Your task to perform on an android device: Go to sound settings Image 0: 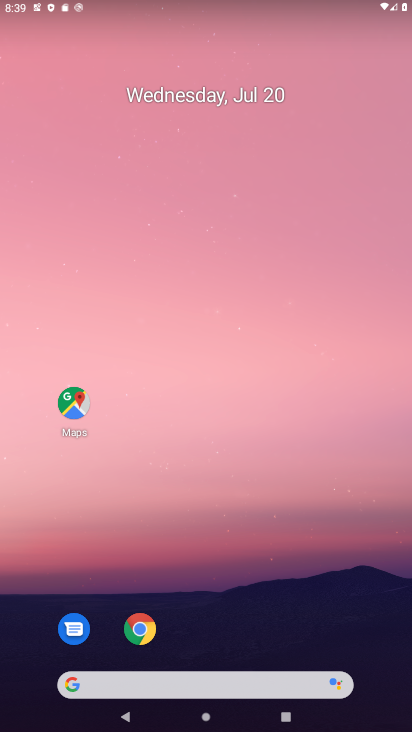
Step 0: drag from (230, 661) to (228, 221)
Your task to perform on an android device: Go to sound settings Image 1: 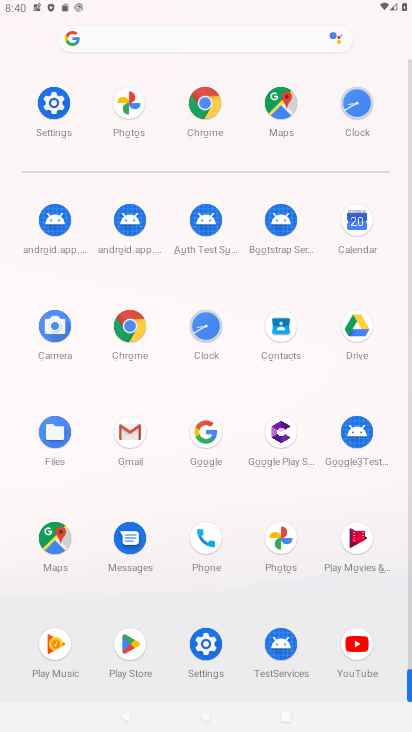
Step 1: click (204, 656)
Your task to perform on an android device: Go to sound settings Image 2: 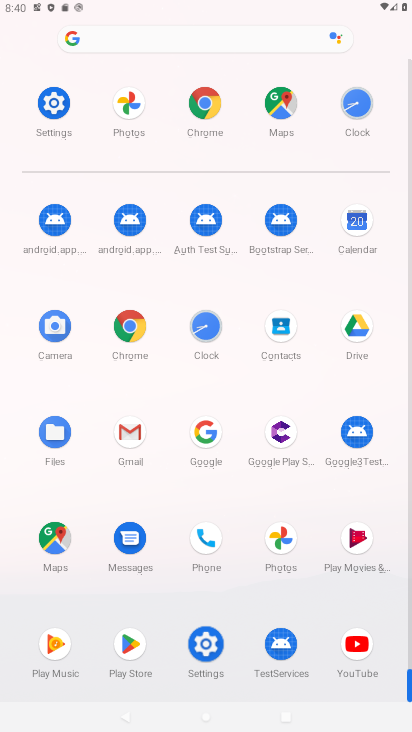
Step 2: click (205, 655)
Your task to perform on an android device: Go to sound settings Image 3: 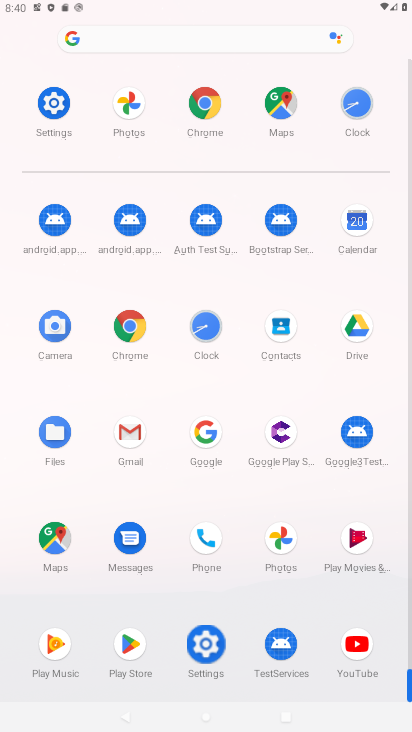
Step 3: click (207, 653)
Your task to perform on an android device: Go to sound settings Image 4: 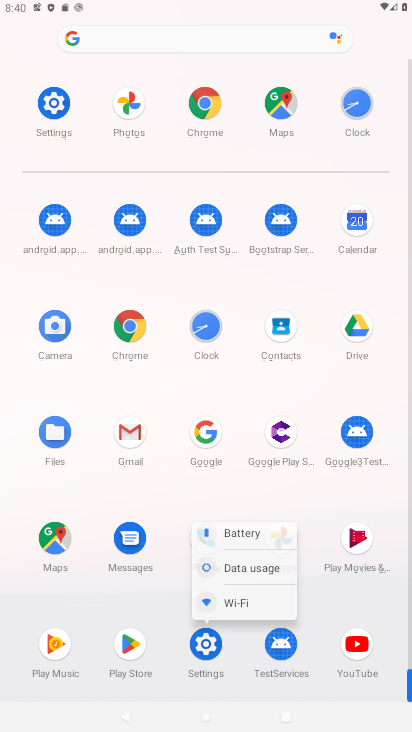
Step 4: click (211, 651)
Your task to perform on an android device: Go to sound settings Image 5: 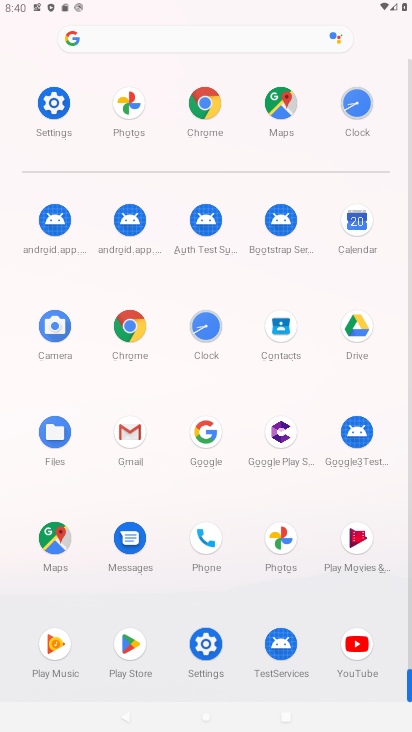
Step 5: click (215, 649)
Your task to perform on an android device: Go to sound settings Image 6: 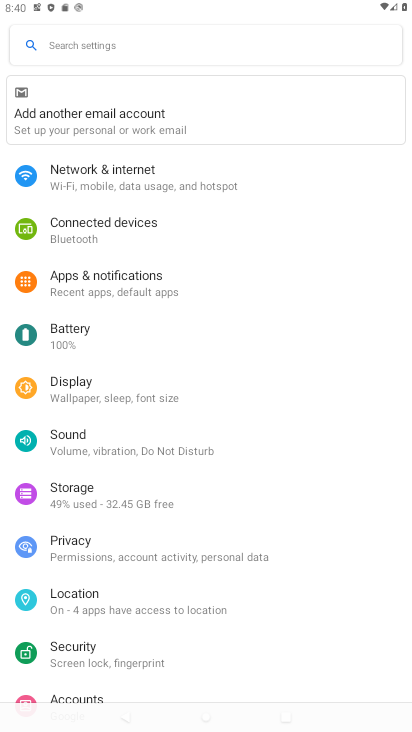
Step 6: click (73, 446)
Your task to perform on an android device: Go to sound settings Image 7: 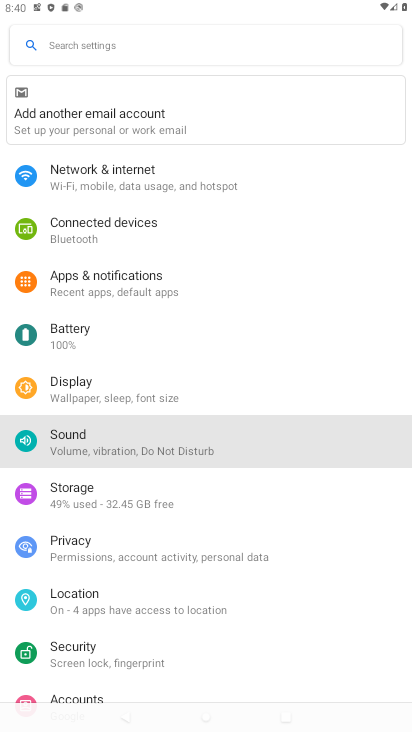
Step 7: click (71, 445)
Your task to perform on an android device: Go to sound settings Image 8: 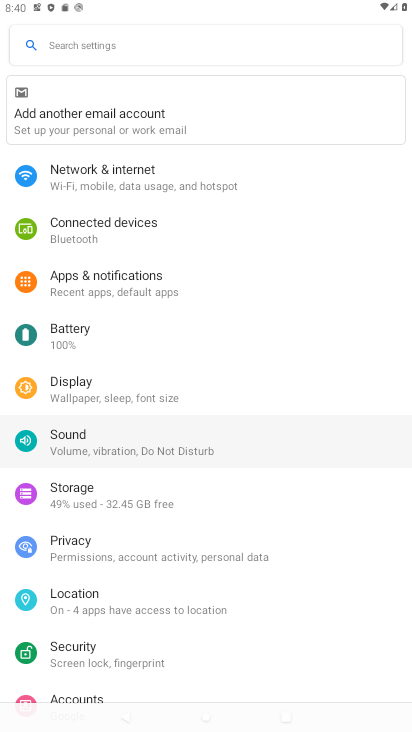
Step 8: click (71, 445)
Your task to perform on an android device: Go to sound settings Image 9: 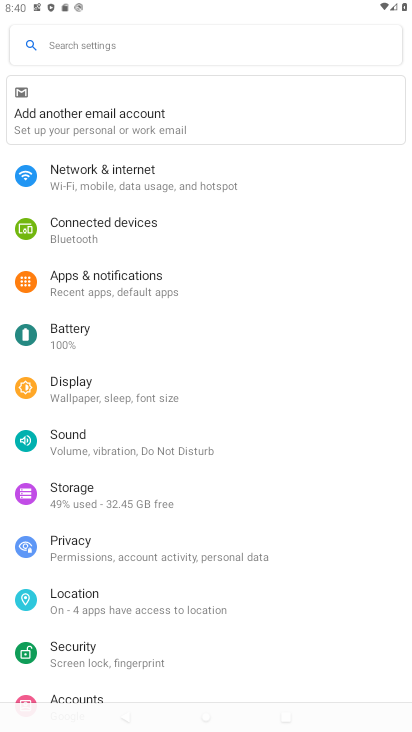
Step 9: click (71, 445)
Your task to perform on an android device: Go to sound settings Image 10: 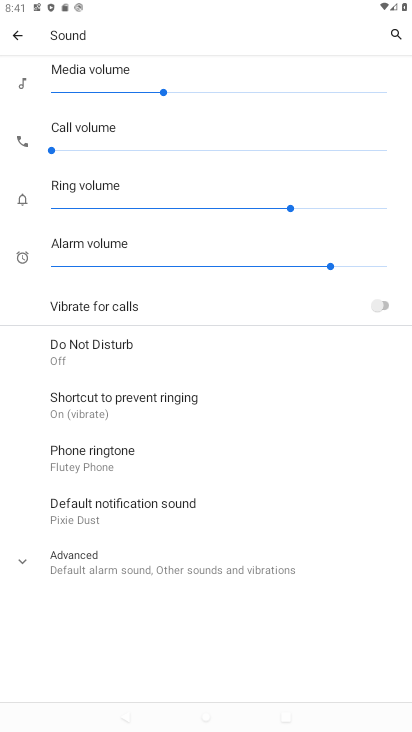
Step 10: task complete